Your task to perform on an android device: Open internet settings Image 0: 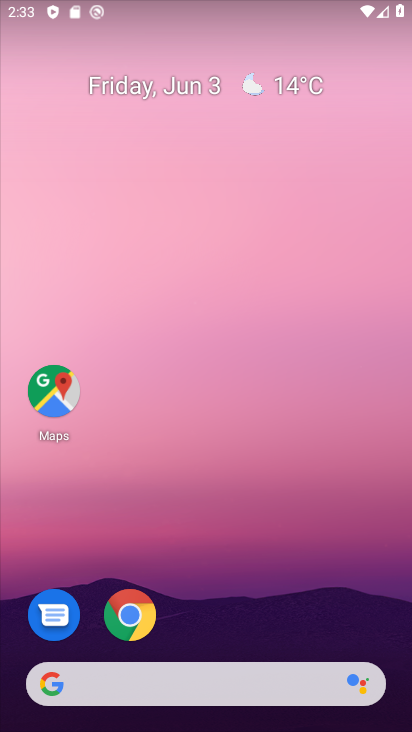
Step 0: drag from (269, 637) to (250, 100)
Your task to perform on an android device: Open internet settings Image 1: 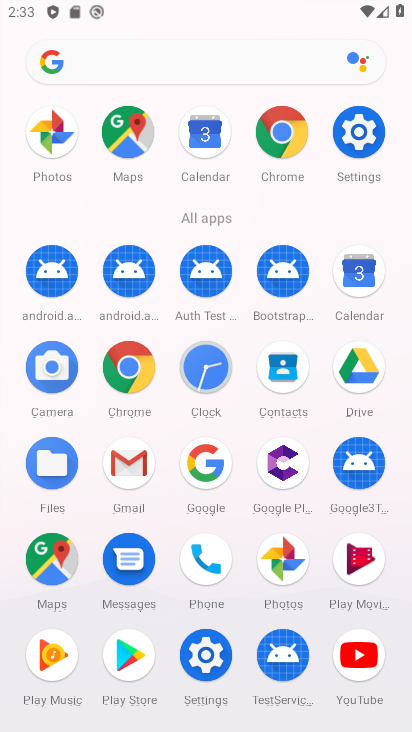
Step 1: click (358, 135)
Your task to perform on an android device: Open internet settings Image 2: 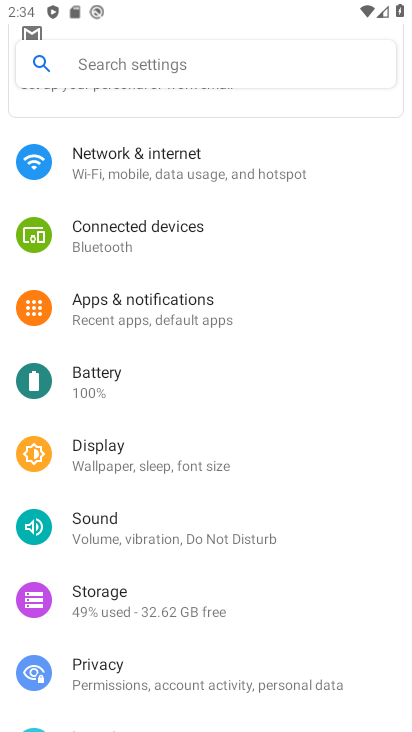
Step 2: click (123, 164)
Your task to perform on an android device: Open internet settings Image 3: 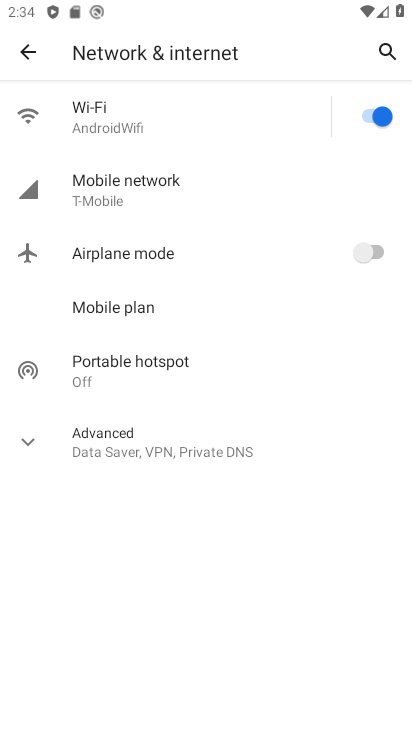
Step 3: task complete